Your task to perform on an android device: Is it going to rain this weekend? Image 0: 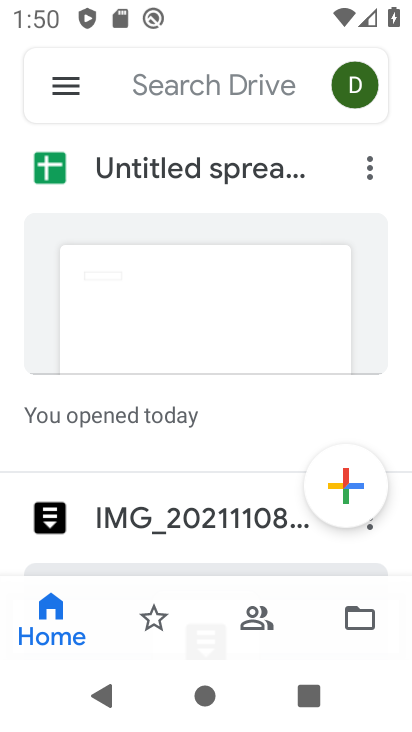
Step 0: press home button
Your task to perform on an android device: Is it going to rain this weekend? Image 1: 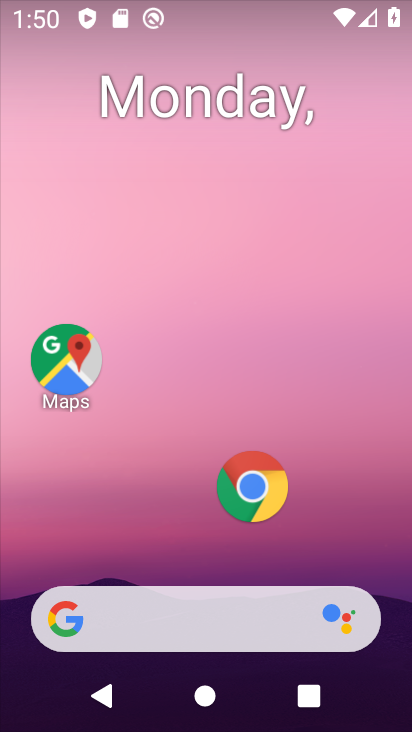
Step 1: click (134, 611)
Your task to perform on an android device: Is it going to rain this weekend? Image 2: 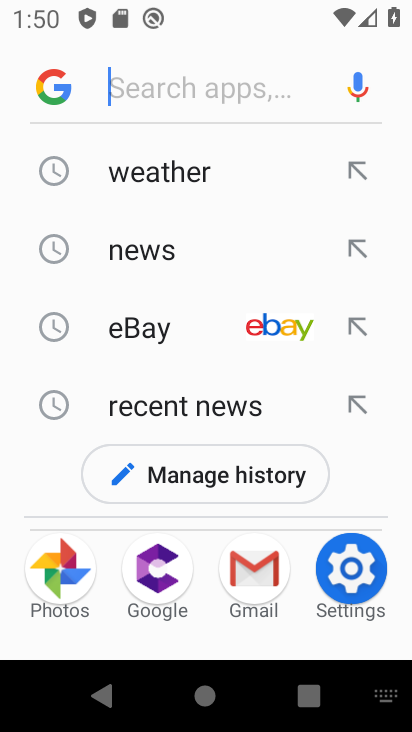
Step 2: type "is it going to rain this weekend"
Your task to perform on an android device: Is it going to rain this weekend? Image 3: 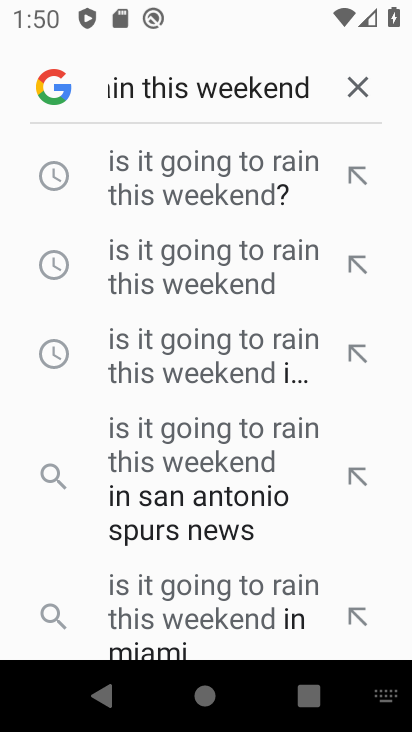
Step 3: click (171, 163)
Your task to perform on an android device: Is it going to rain this weekend? Image 4: 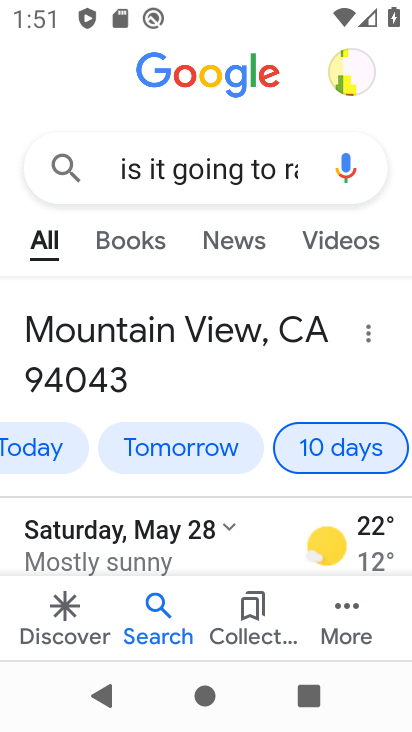
Step 4: task complete